Your task to perform on an android device: Search for flights from Barcelona to Boston Image 0: 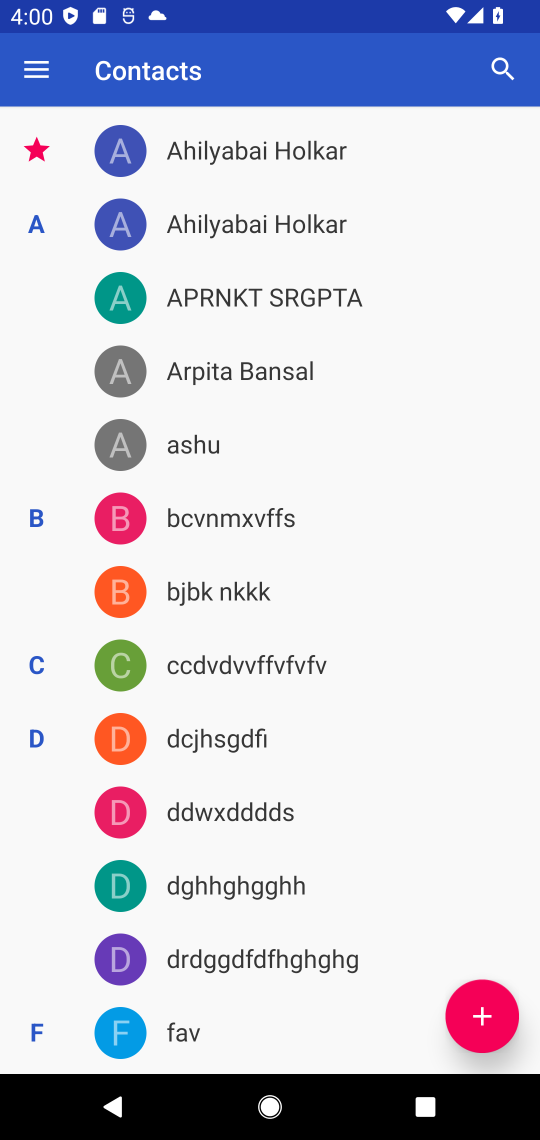
Step 0: press home button
Your task to perform on an android device: Search for flights from Barcelona to Boston Image 1: 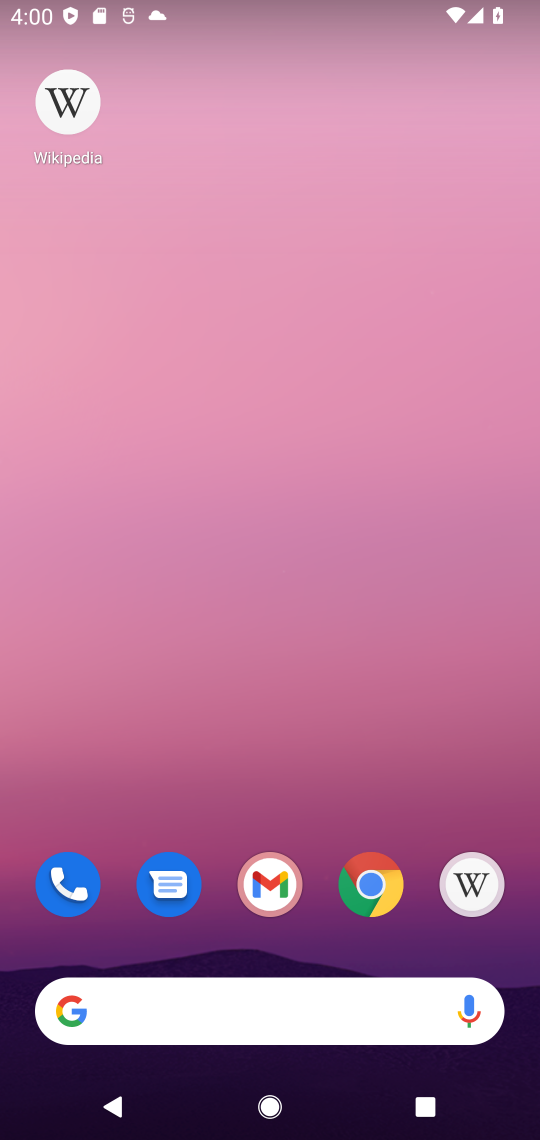
Step 1: click (360, 901)
Your task to perform on an android device: Search for flights from Barcelona to Boston Image 2: 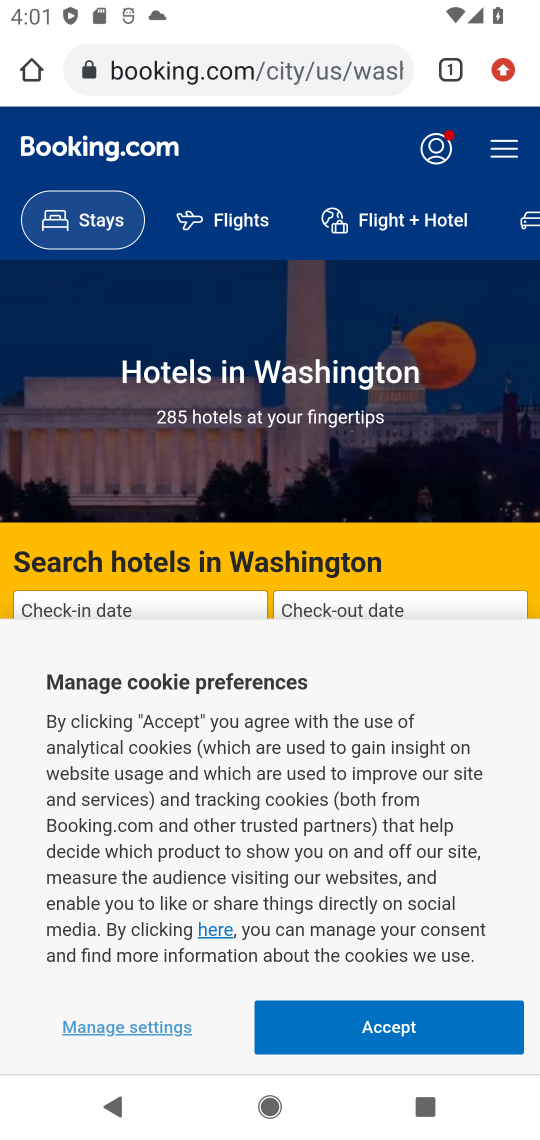
Step 2: click (225, 80)
Your task to perform on an android device: Search for flights from Barcelona to Boston Image 3: 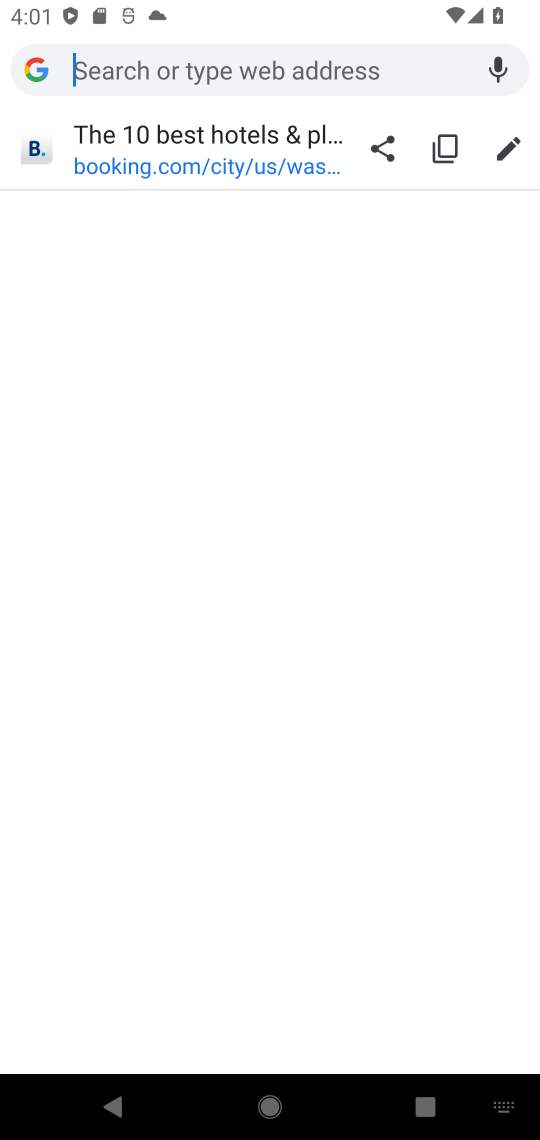
Step 3: type "flights from Barcelona to Boston"
Your task to perform on an android device: Search for flights from Barcelona to Boston Image 4: 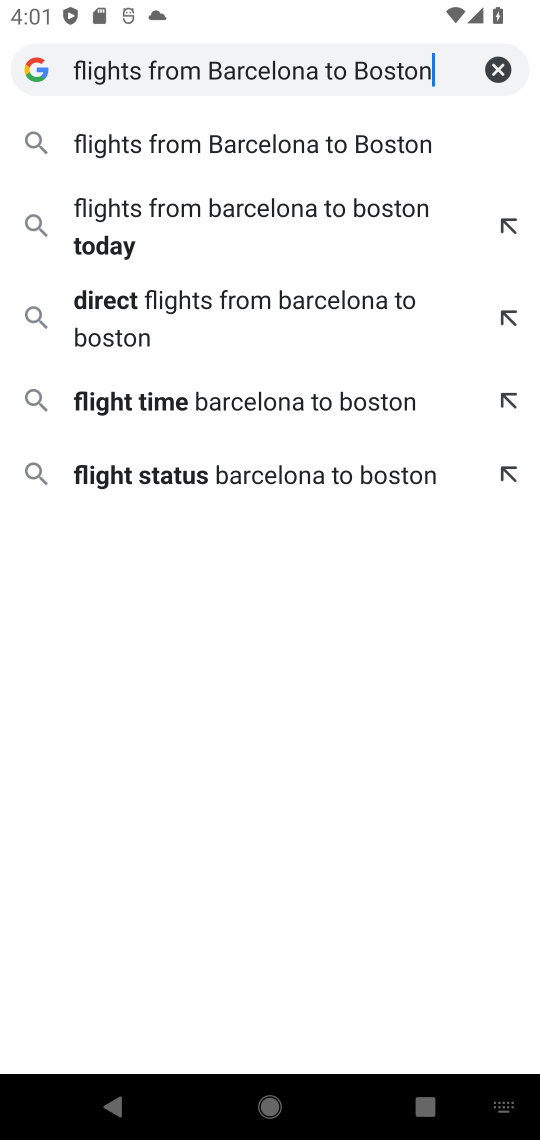
Step 4: click (254, 153)
Your task to perform on an android device: Search for flights from Barcelona to Boston Image 5: 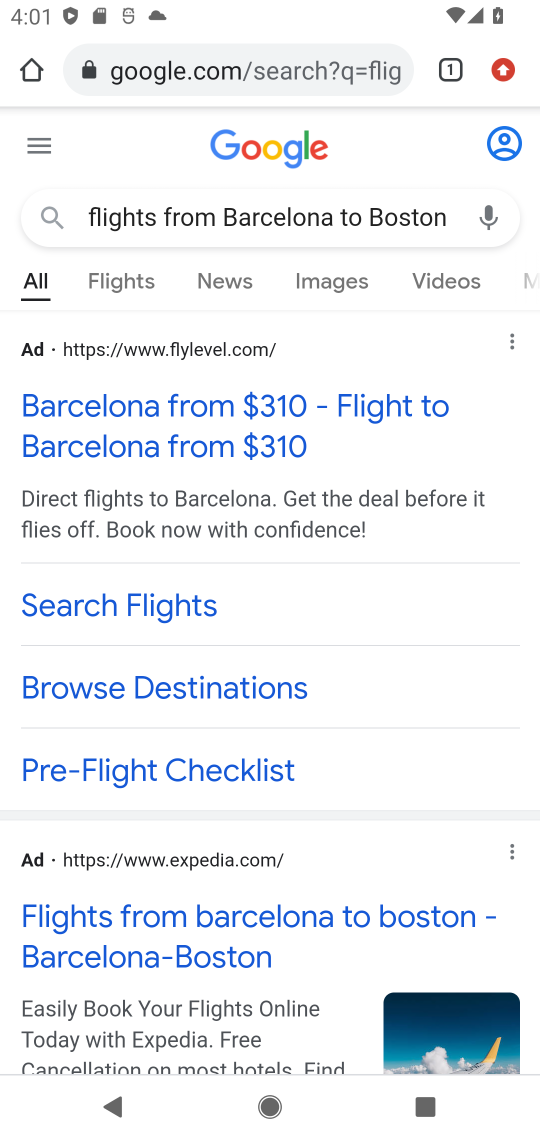
Step 5: click (193, 939)
Your task to perform on an android device: Search for flights from Barcelona to Boston Image 6: 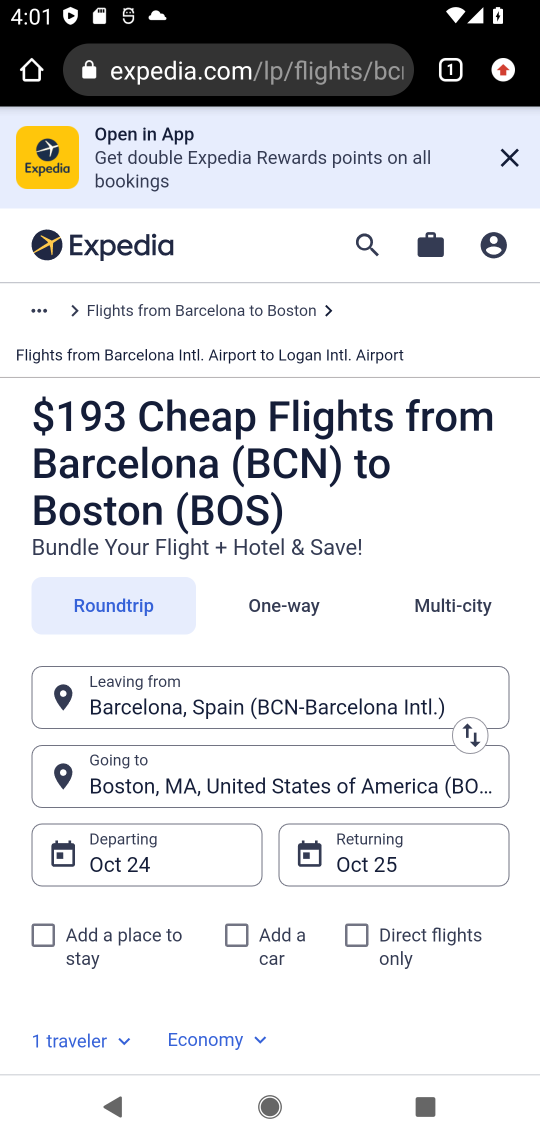
Step 6: task complete